Your task to perform on an android device: visit the assistant section in the google photos Image 0: 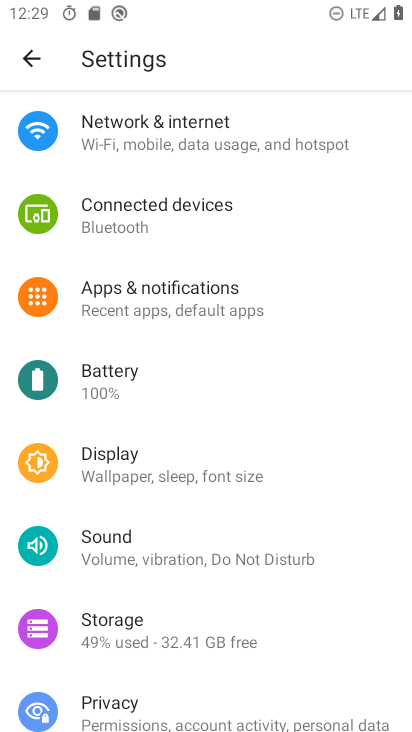
Step 0: press home button
Your task to perform on an android device: visit the assistant section in the google photos Image 1: 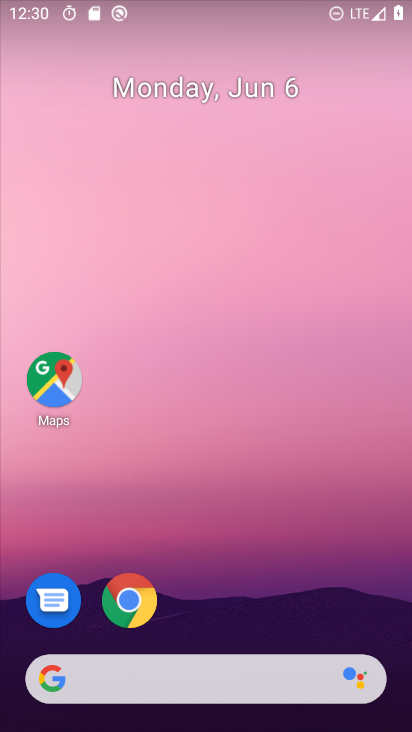
Step 1: drag from (178, 607) to (228, 245)
Your task to perform on an android device: visit the assistant section in the google photos Image 2: 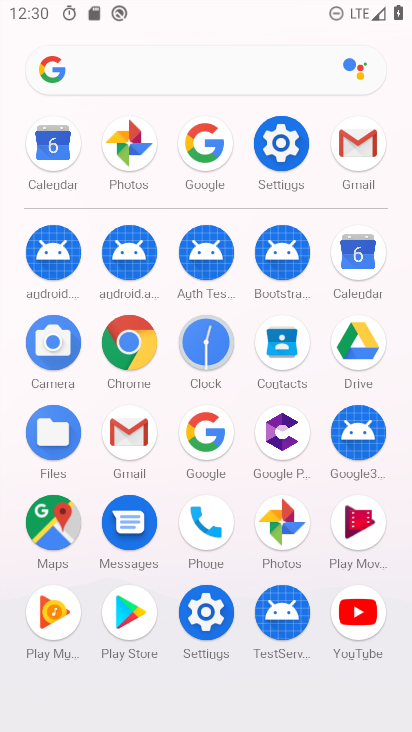
Step 2: click (145, 154)
Your task to perform on an android device: visit the assistant section in the google photos Image 3: 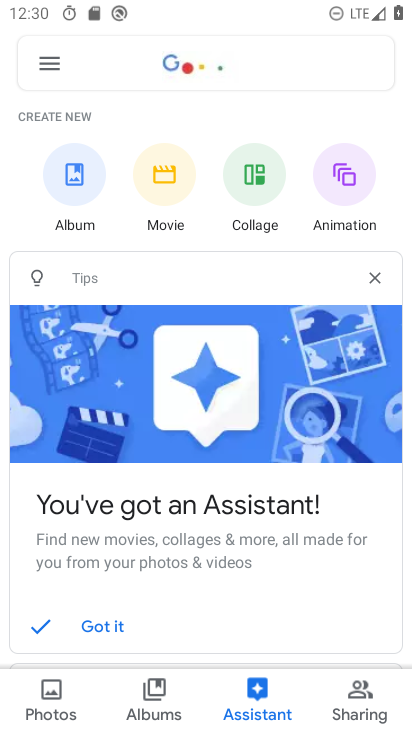
Step 3: task complete